Your task to perform on an android device: turn vacation reply on in the gmail app Image 0: 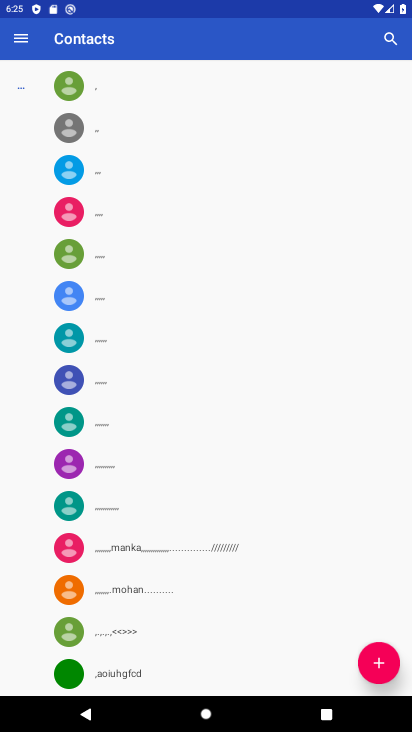
Step 0: press home button
Your task to perform on an android device: turn vacation reply on in the gmail app Image 1: 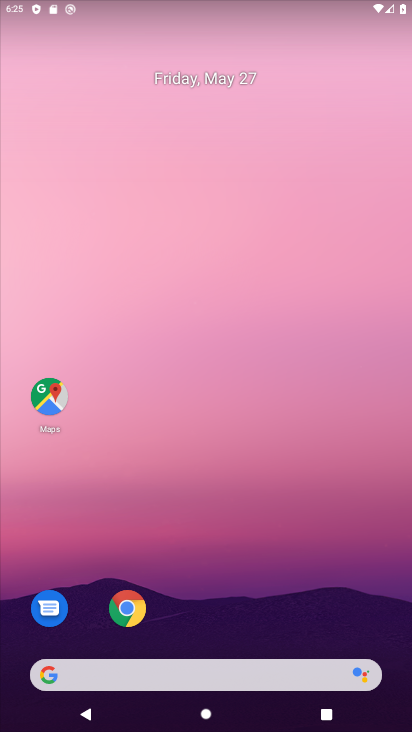
Step 1: drag from (200, 637) to (223, 169)
Your task to perform on an android device: turn vacation reply on in the gmail app Image 2: 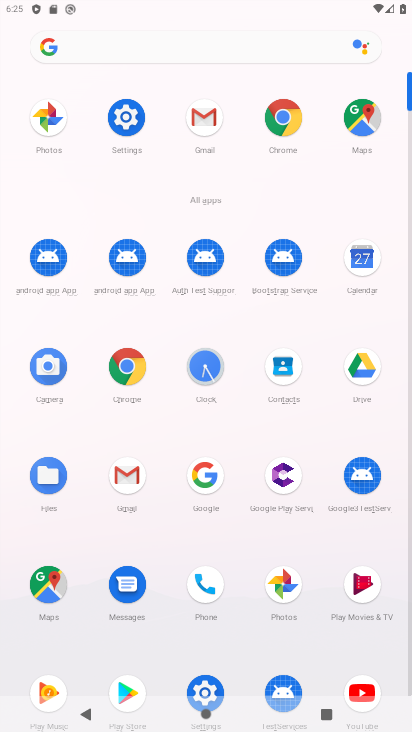
Step 2: click (202, 130)
Your task to perform on an android device: turn vacation reply on in the gmail app Image 3: 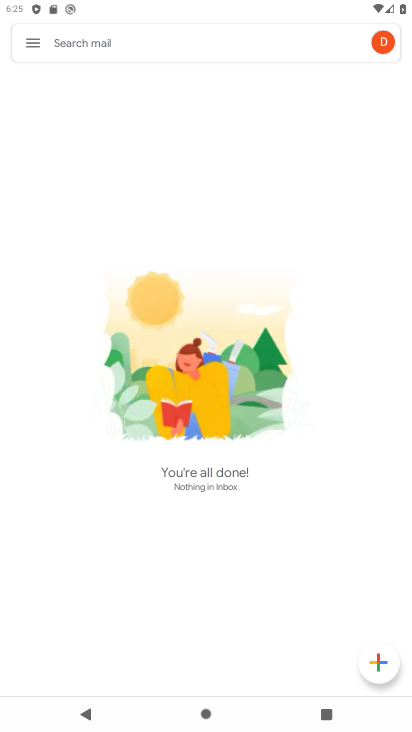
Step 3: click (33, 42)
Your task to perform on an android device: turn vacation reply on in the gmail app Image 4: 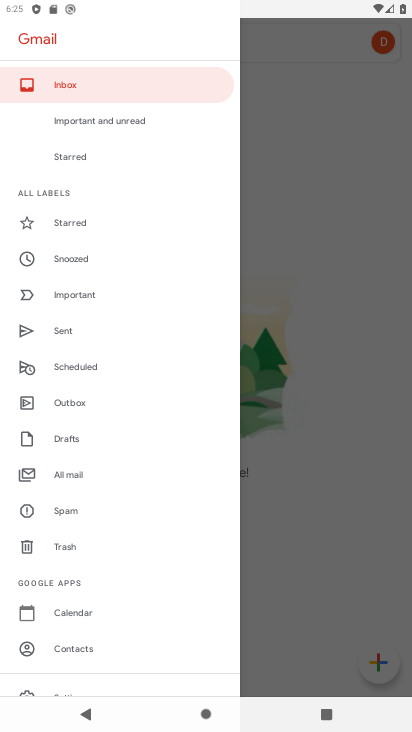
Step 4: drag from (96, 644) to (121, 233)
Your task to perform on an android device: turn vacation reply on in the gmail app Image 5: 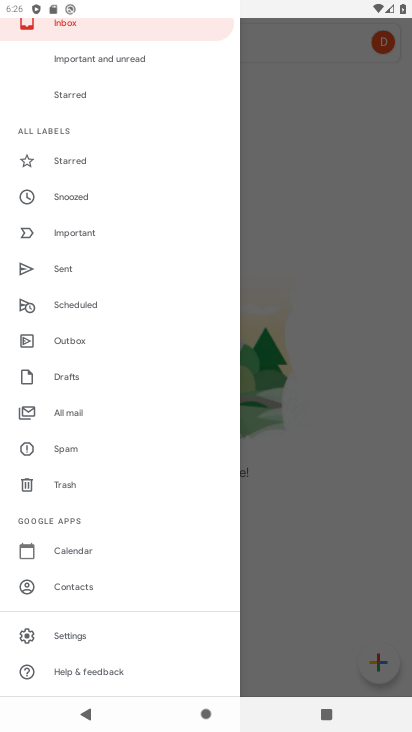
Step 5: click (92, 629)
Your task to perform on an android device: turn vacation reply on in the gmail app Image 6: 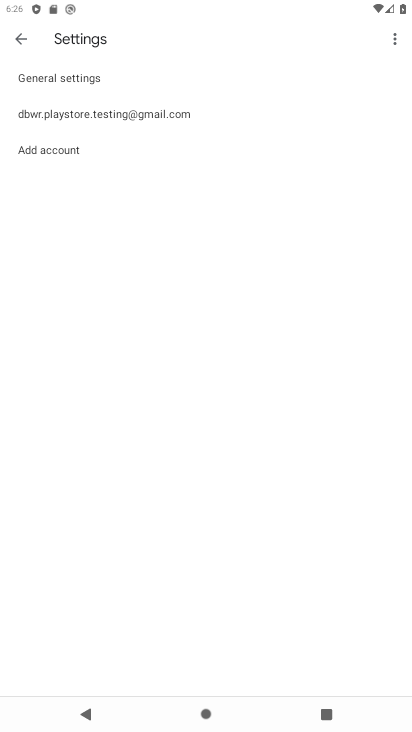
Step 6: click (193, 110)
Your task to perform on an android device: turn vacation reply on in the gmail app Image 7: 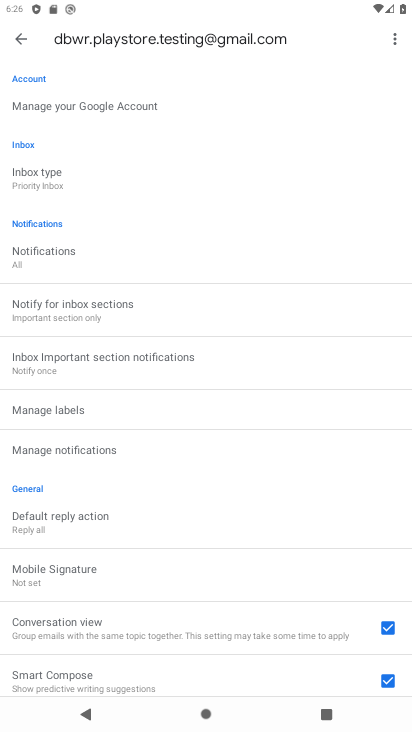
Step 7: drag from (132, 649) to (158, 296)
Your task to perform on an android device: turn vacation reply on in the gmail app Image 8: 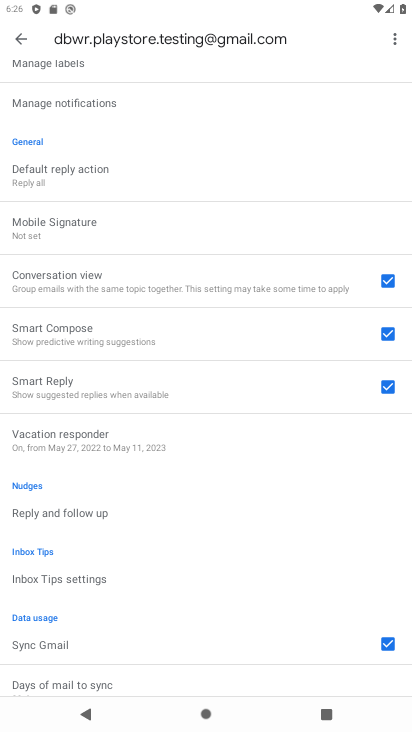
Step 8: click (122, 438)
Your task to perform on an android device: turn vacation reply on in the gmail app Image 9: 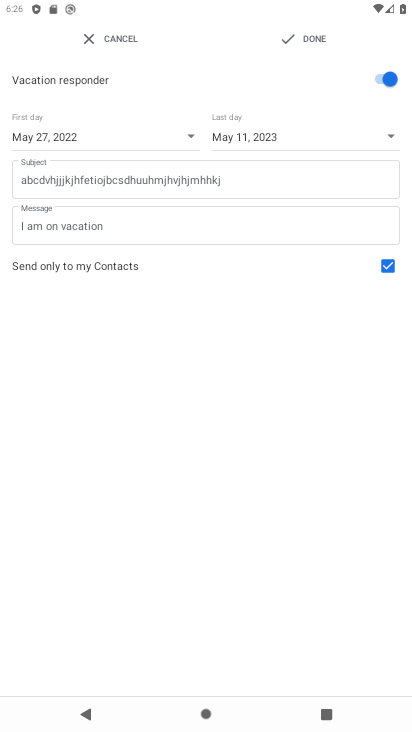
Step 9: task complete